Your task to perform on an android device: refresh tabs in the chrome app Image 0: 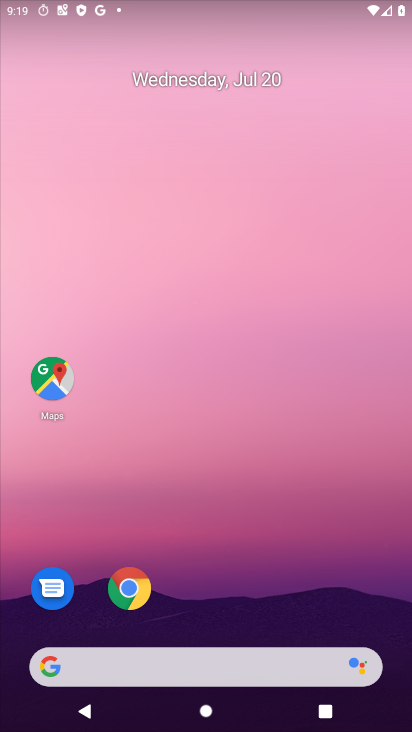
Step 0: drag from (308, 585) to (315, 68)
Your task to perform on an android device: refresh tabs in the chrome app Image 1: 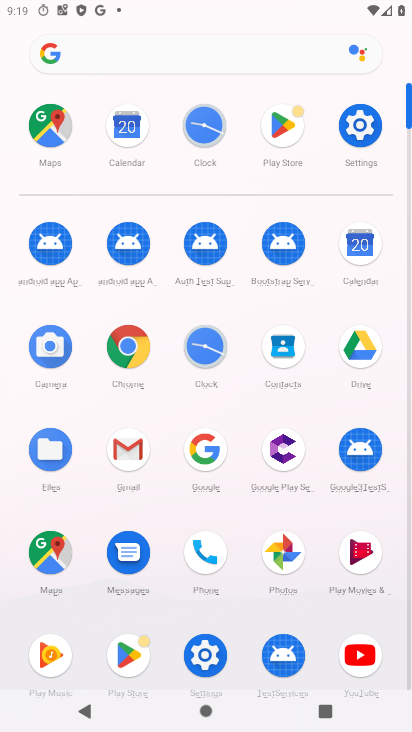
Step 1: click (124, 339)
Your task to perform on an android device: refresh tabs in the chrome app Image 2: 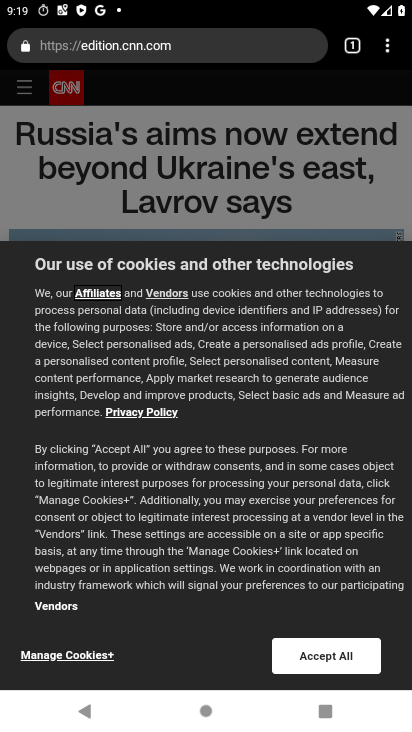
Step 2: click (385, 46)
Your task to perform on an android device: refresh tabs in the chrome app Image 3: 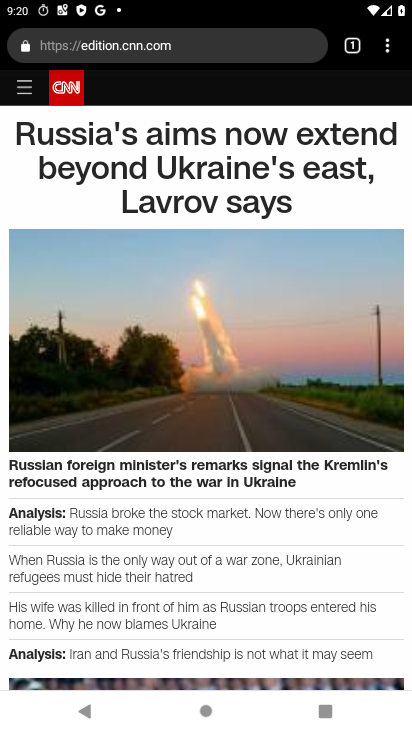
Step 3: task complete